Your task to perform on an android device: change notification settings in the gmail app Image 0: 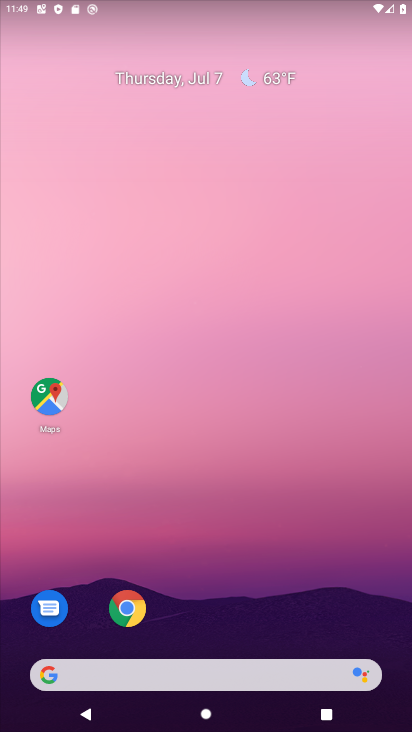
Step 0: drag from (37, 559) to (214, 59)
Your task to perform on an android device: change notification settings in the gmail app Image 1: 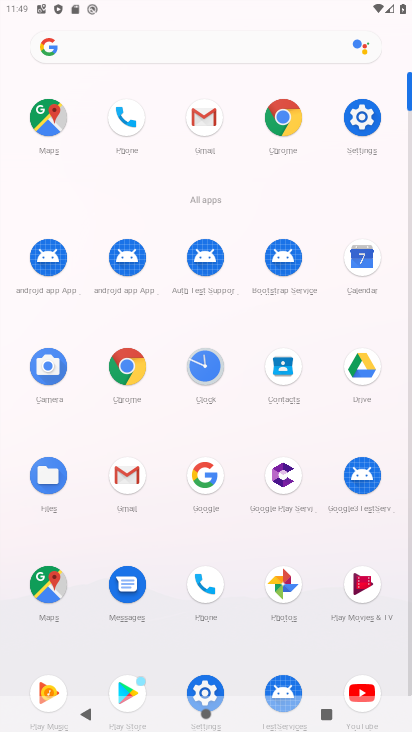
Step 1: click (346, 108)
Your task to perform on an android device: change notification settings in the gmail app Image 2: 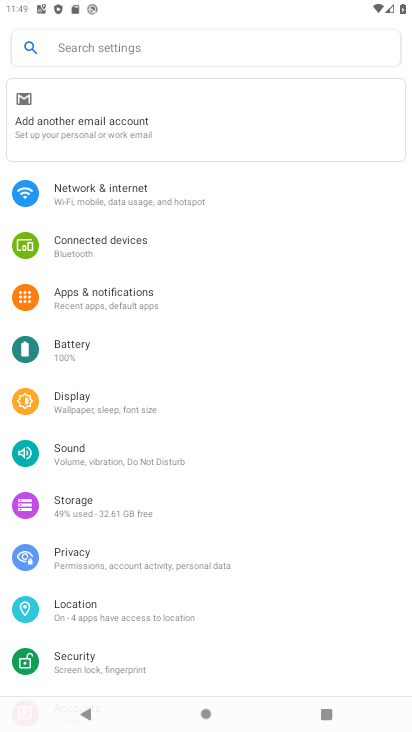
Step 2: click (117, 305)
Your task to perform on an android device: change notification settings in the gmail app Image 3: 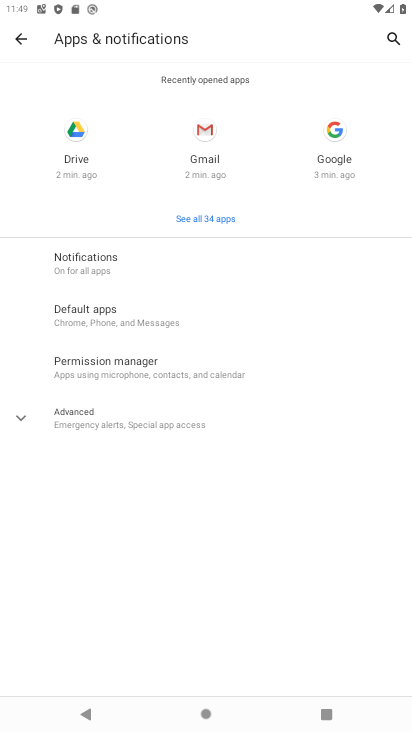
Step 3: click (198, 123)
Your task to perform on an android device: change notification settings in the gmail app Image 4: 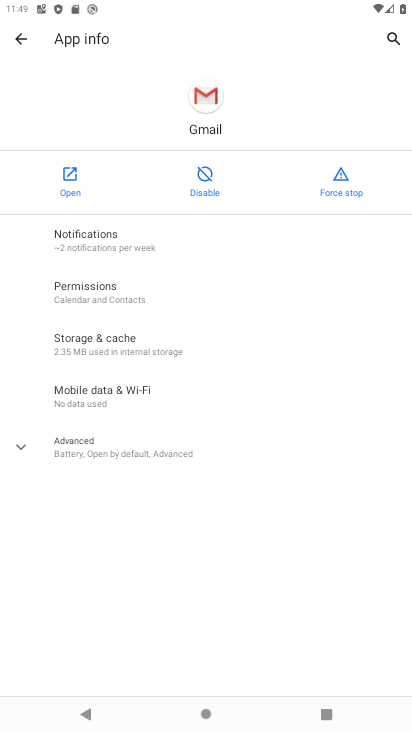
Step 4: click (192, 235)
Your task to perform on an android device: change notification settings in the gmail app Image 5: 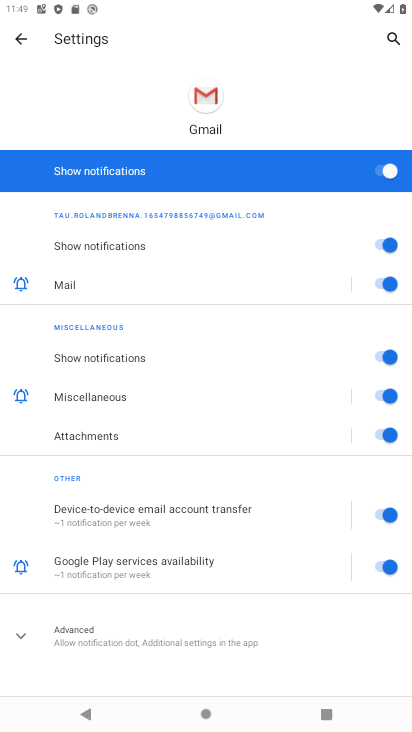
Step 5: click (392, 174)
Your task to perform on an android device: change notification settings in the gmail app Image 6: 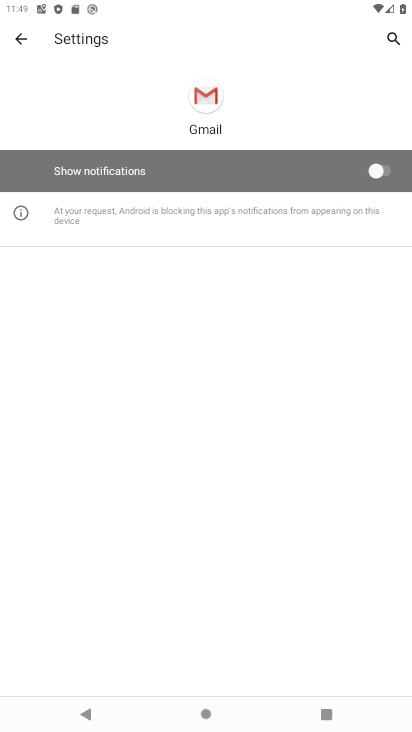
Step 6: task complete